Your task to perform on an android device: Open Amazon Image 0: 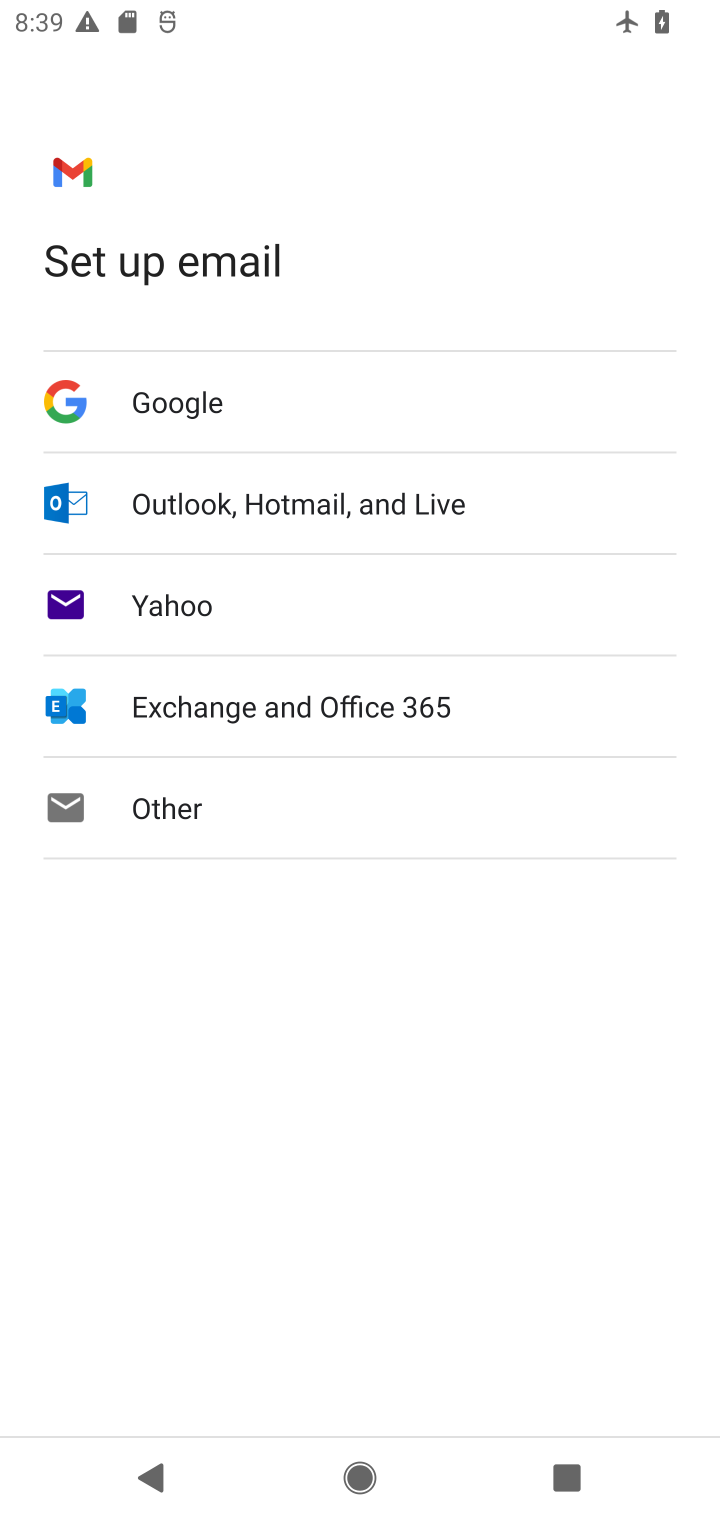
Step 0: press home button
Your task to perform on an android device: Open Amazon Image 1: 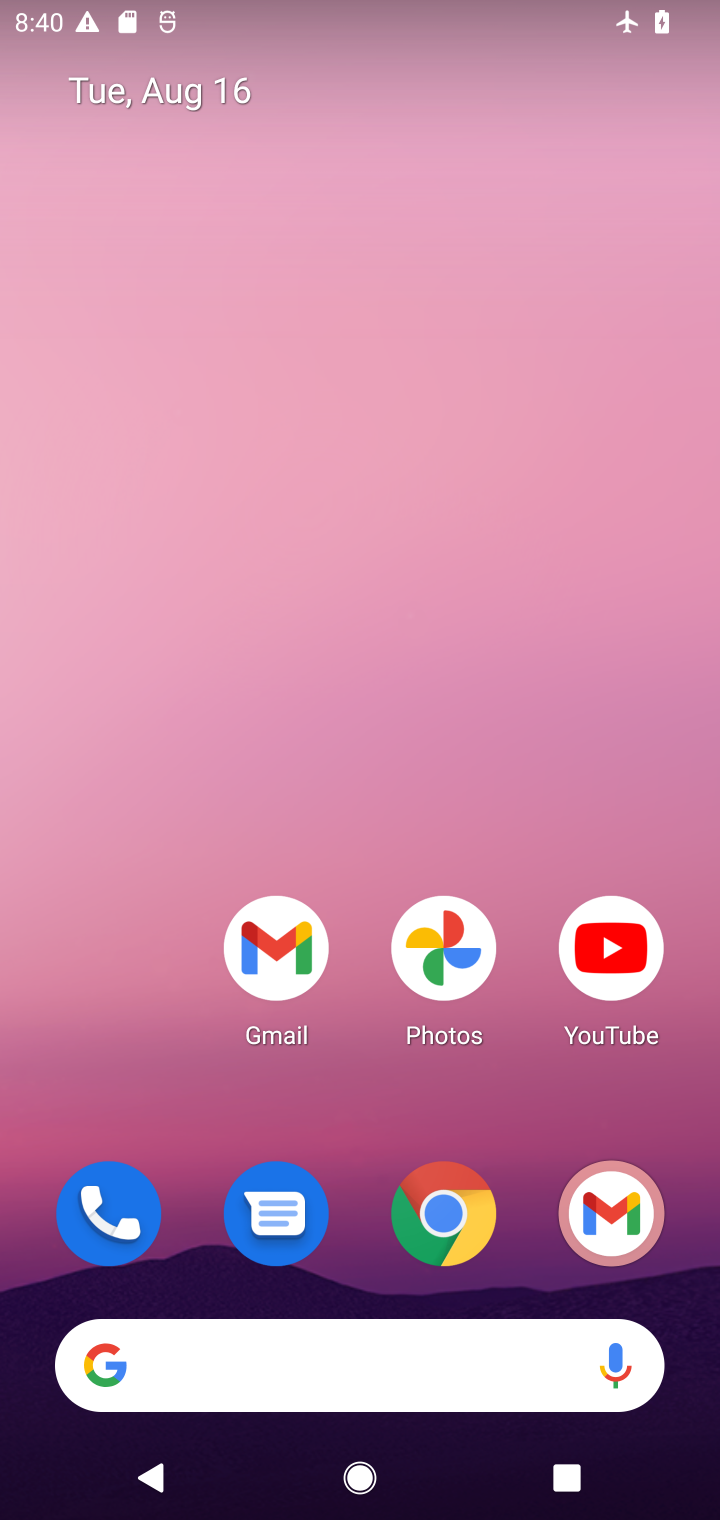
Step 1: click (456, 1188)
Your task to perform on an android device: Open Amazon Image 2: 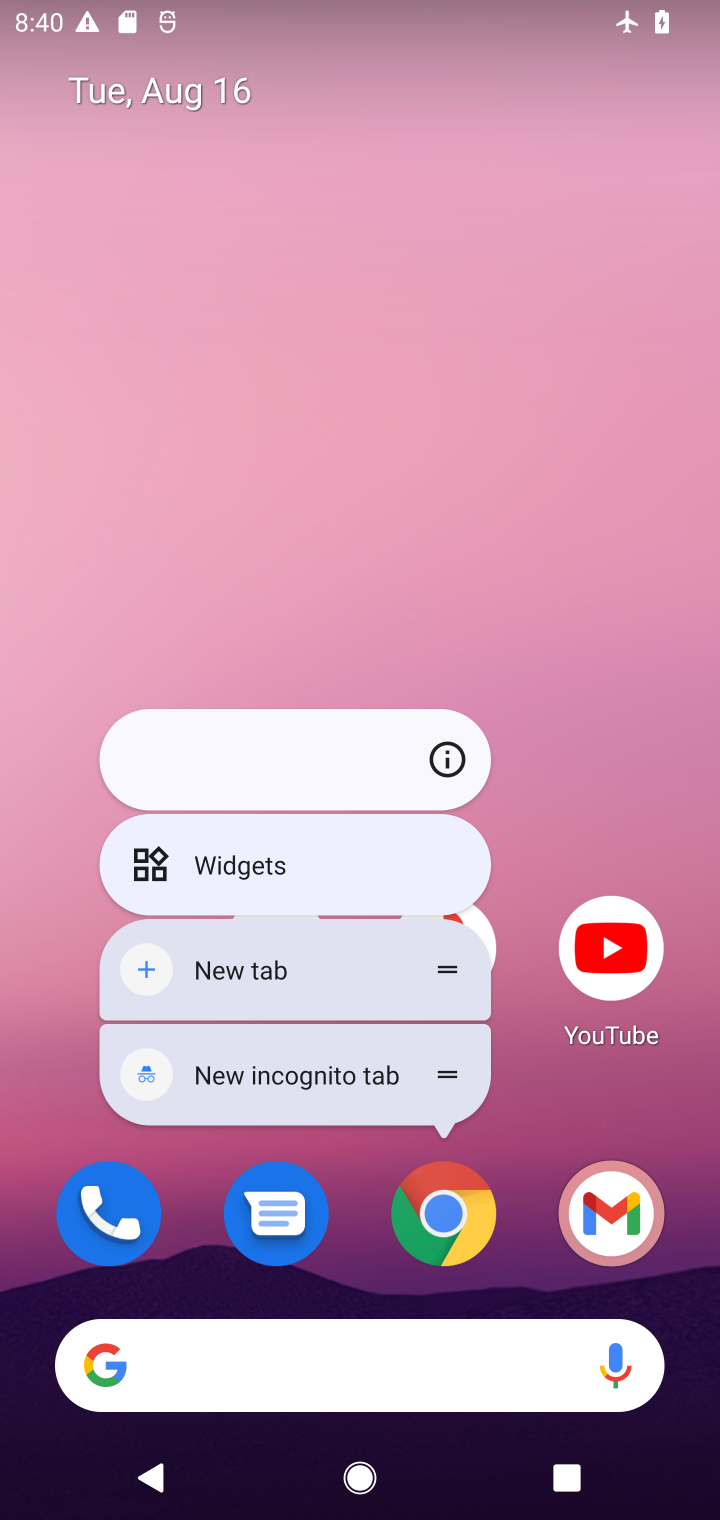
Step 2: click (434, 1242)
Your task to perform on an android device: Open Amazon Image 3: 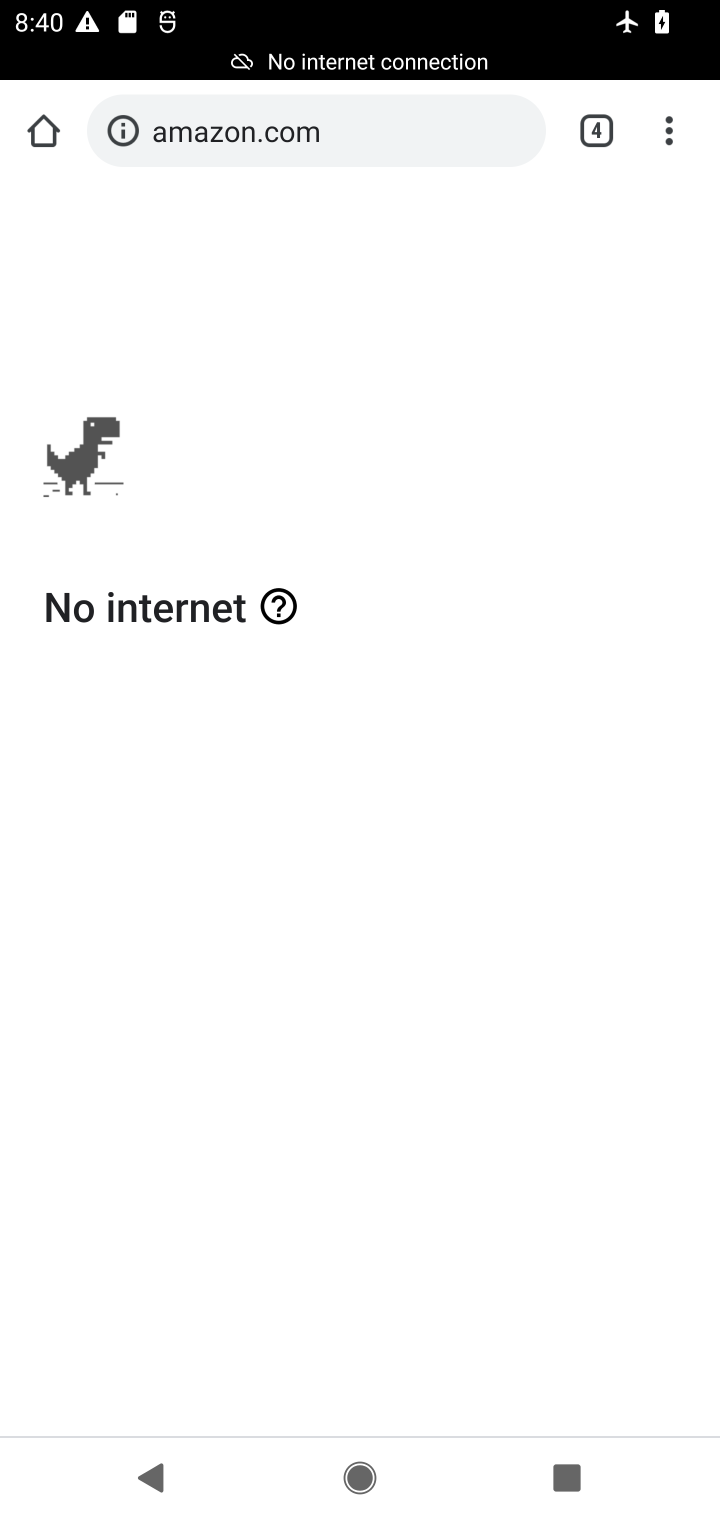
Step 3: click (659, 135)
Your task to perform on an android device: Open Amazon Image 4: 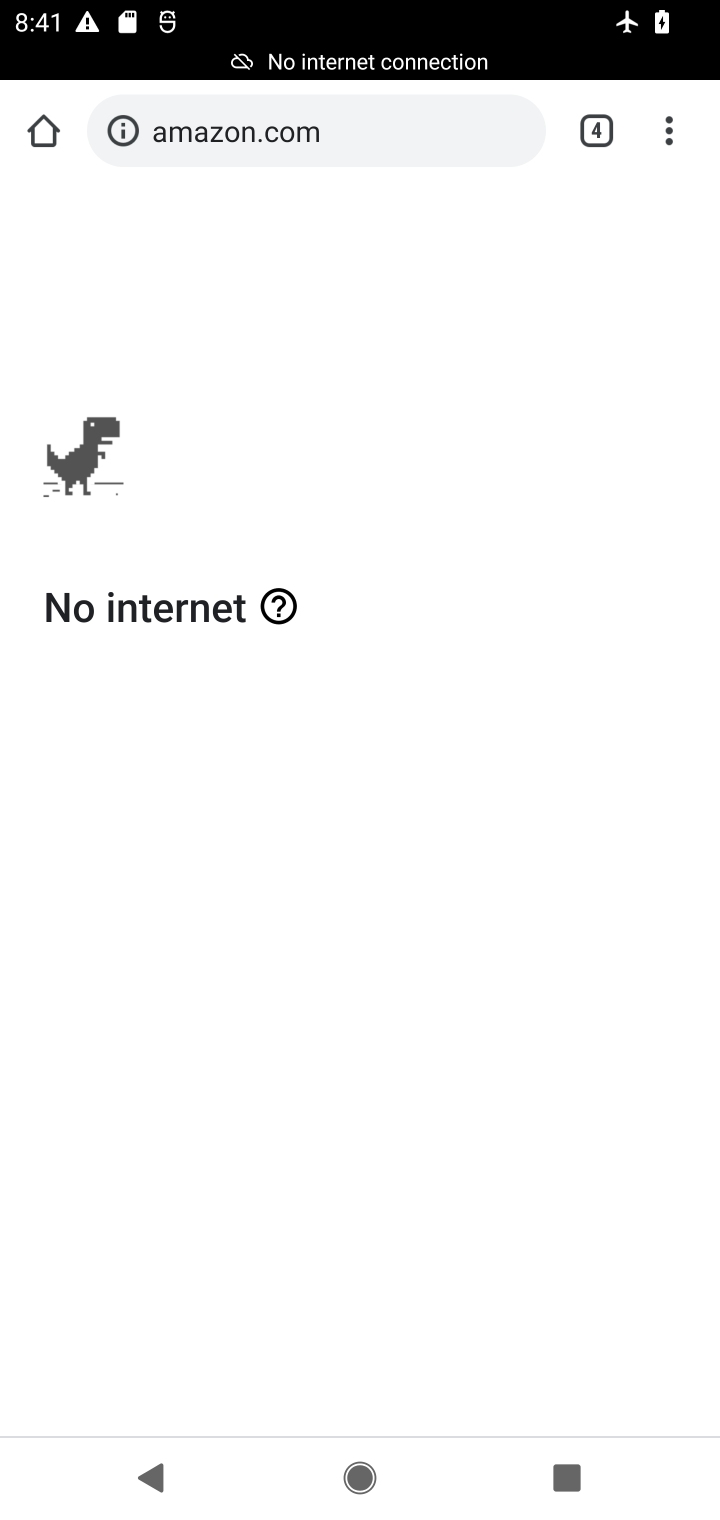
Step 4: click (593, 126)
Your task to perform on an android device: Open Amazon Image 5: 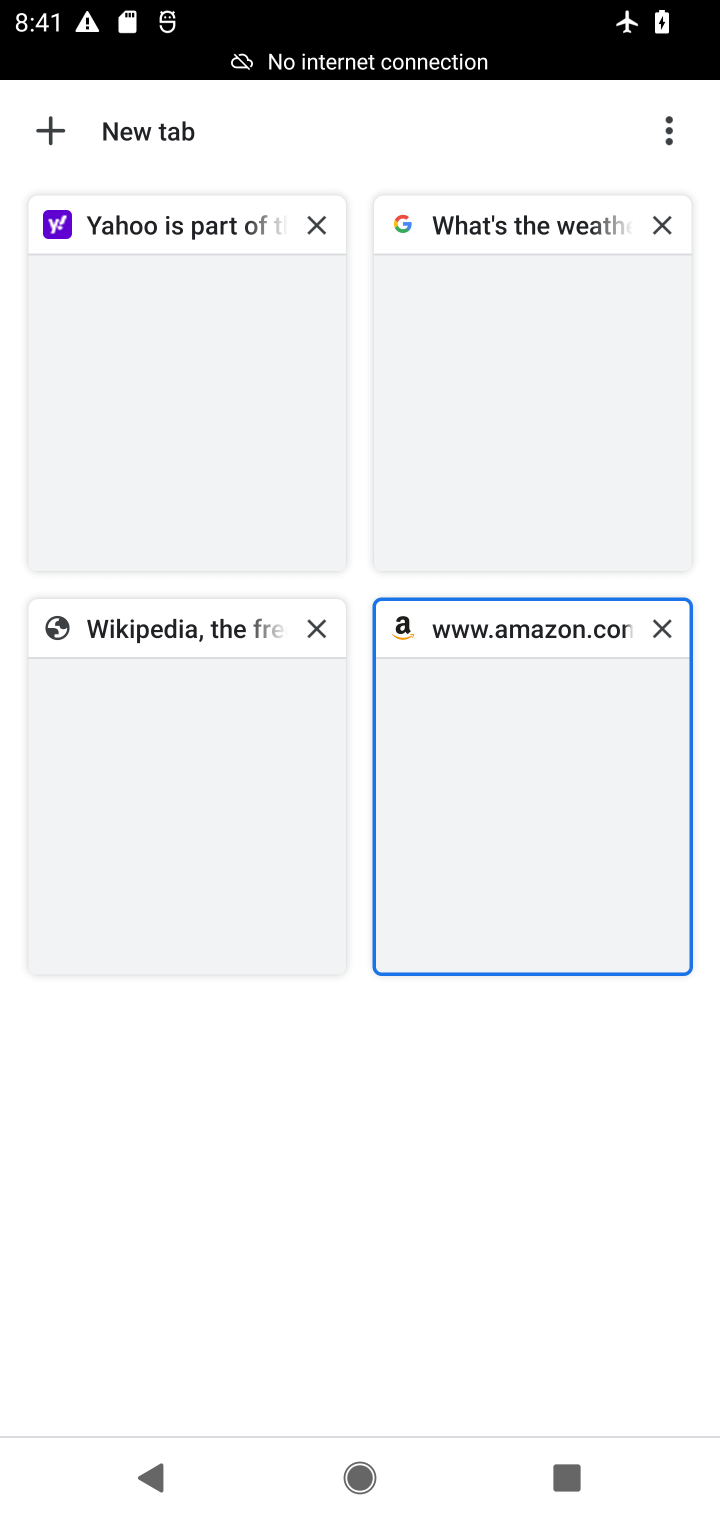
Step 5: click (44, 126)
Your task to perform on an android device: Open Amazon Image 6: 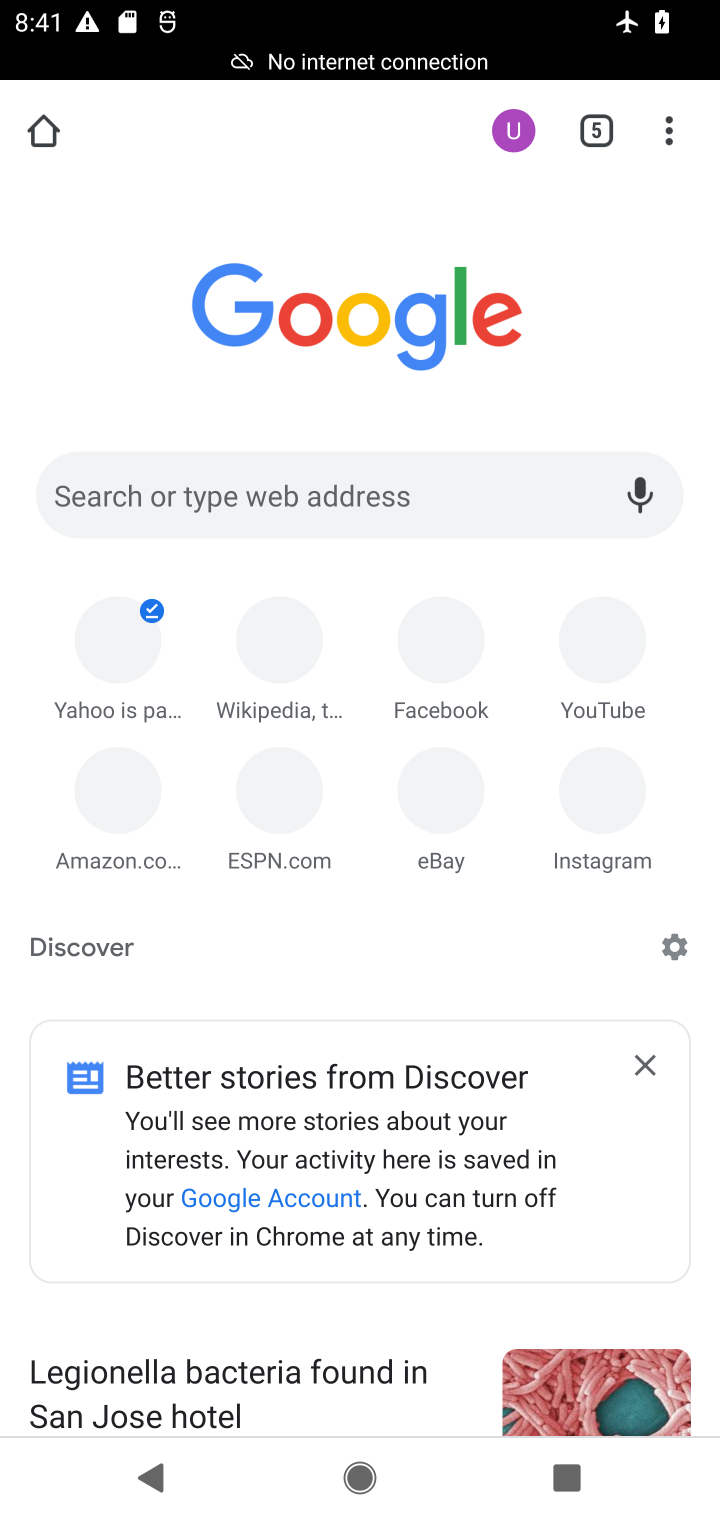
Step 6: click (114, 772)
Your task to perform on an android device: Open Amazon Image 7: 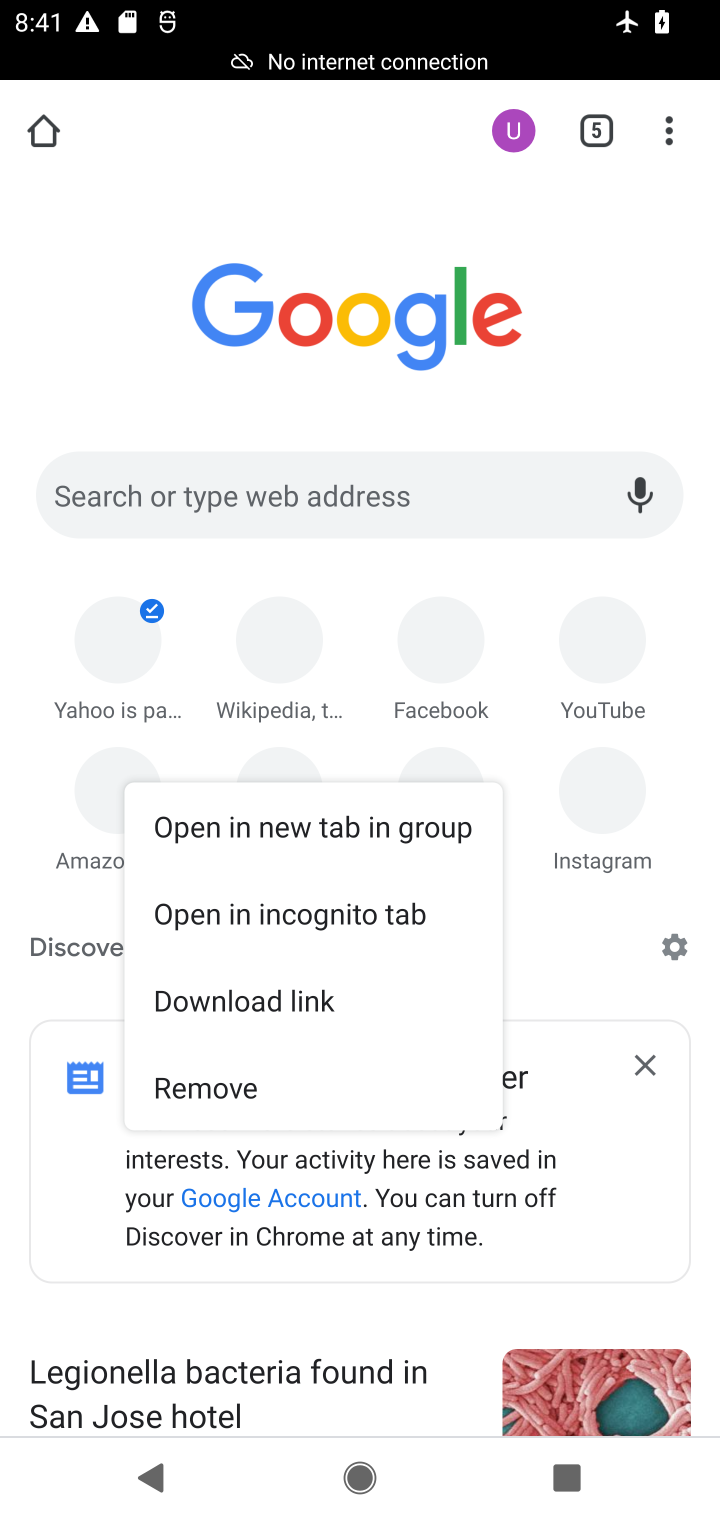
Step 7: click (124, 784)
Your task to perform on an android device: Open Amazon Image 8: 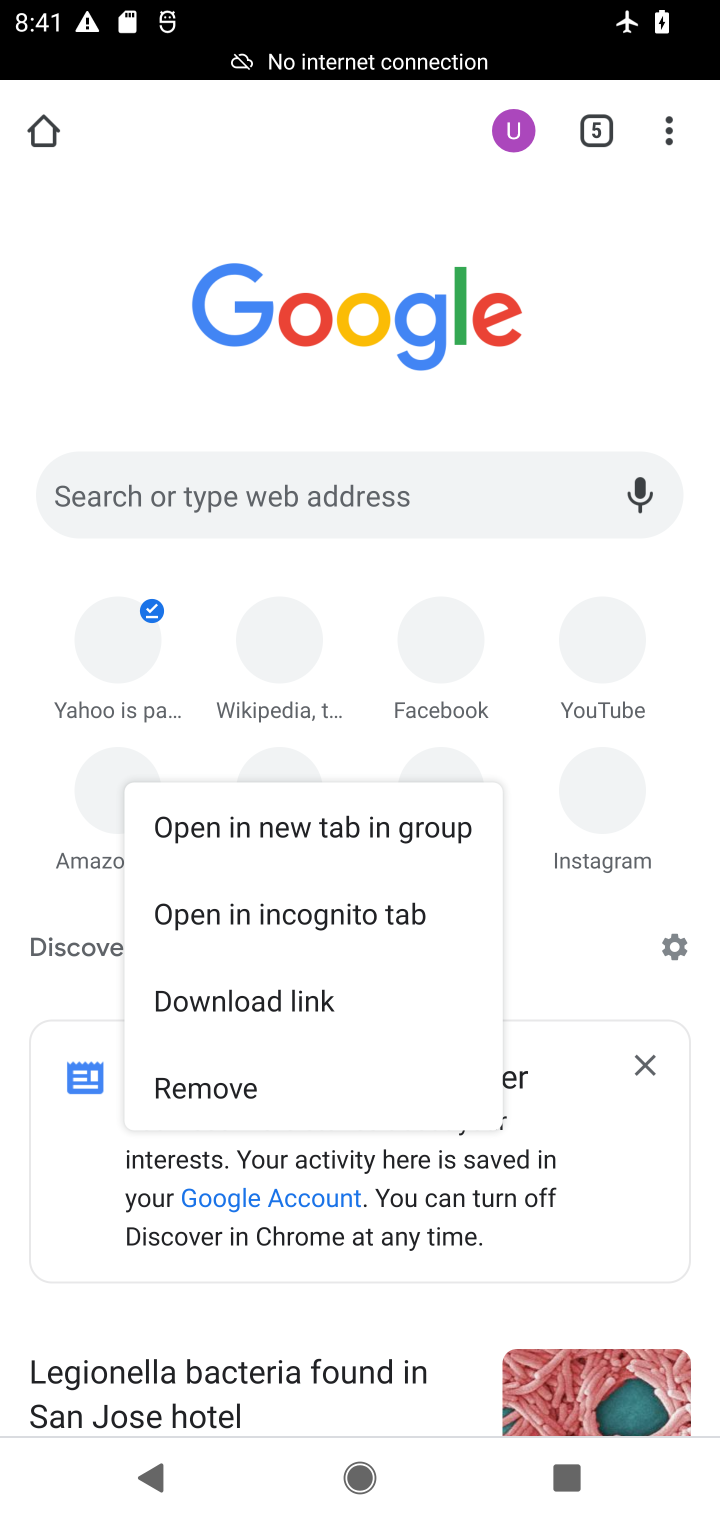
Step 8: click (105, 777)
Your task to perform on an android device: Open Amazon Image 9: 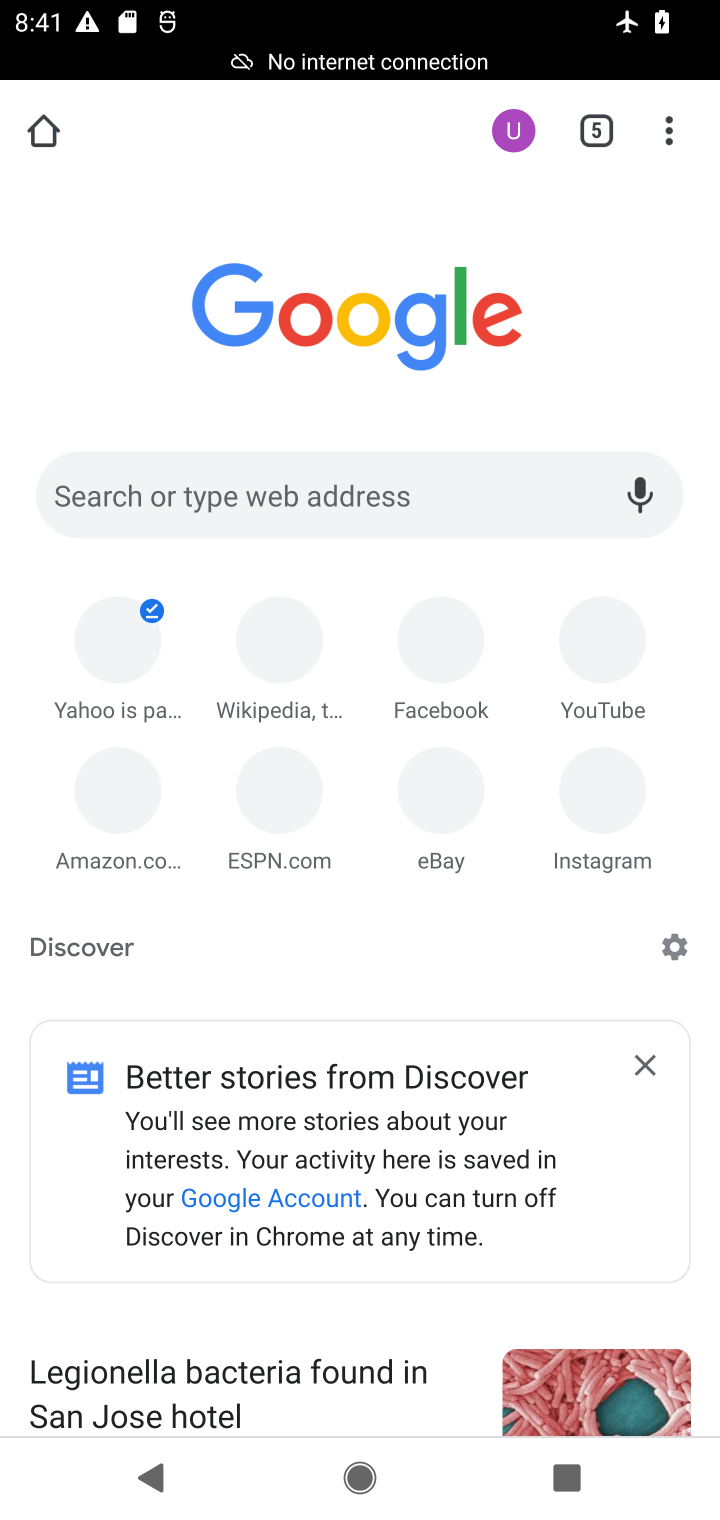
Step 9: click (133, 821)
Your task to perform on an android device: Open Amazon Image 10: 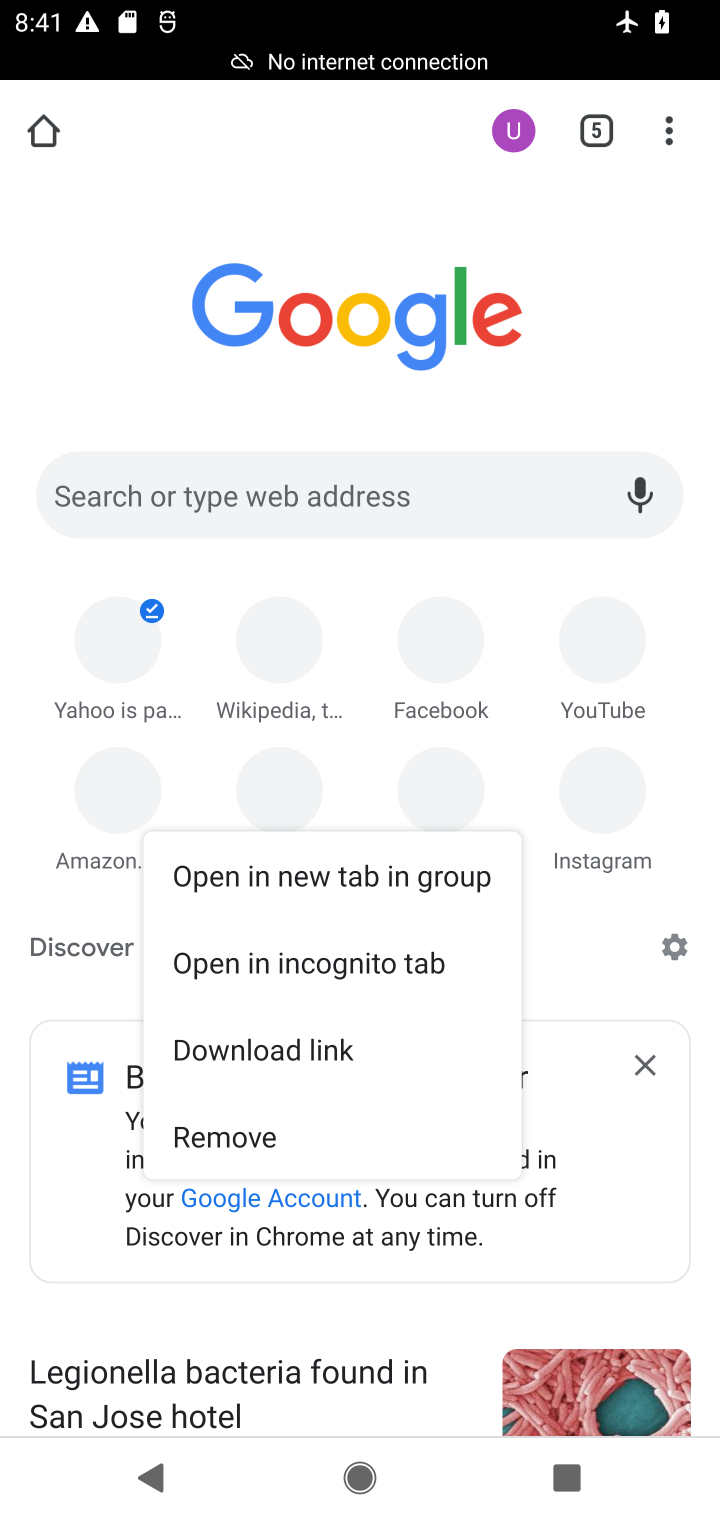
Step 10: click (126, 806)
Your task to perform on an android device: Open Amazon Image 11: 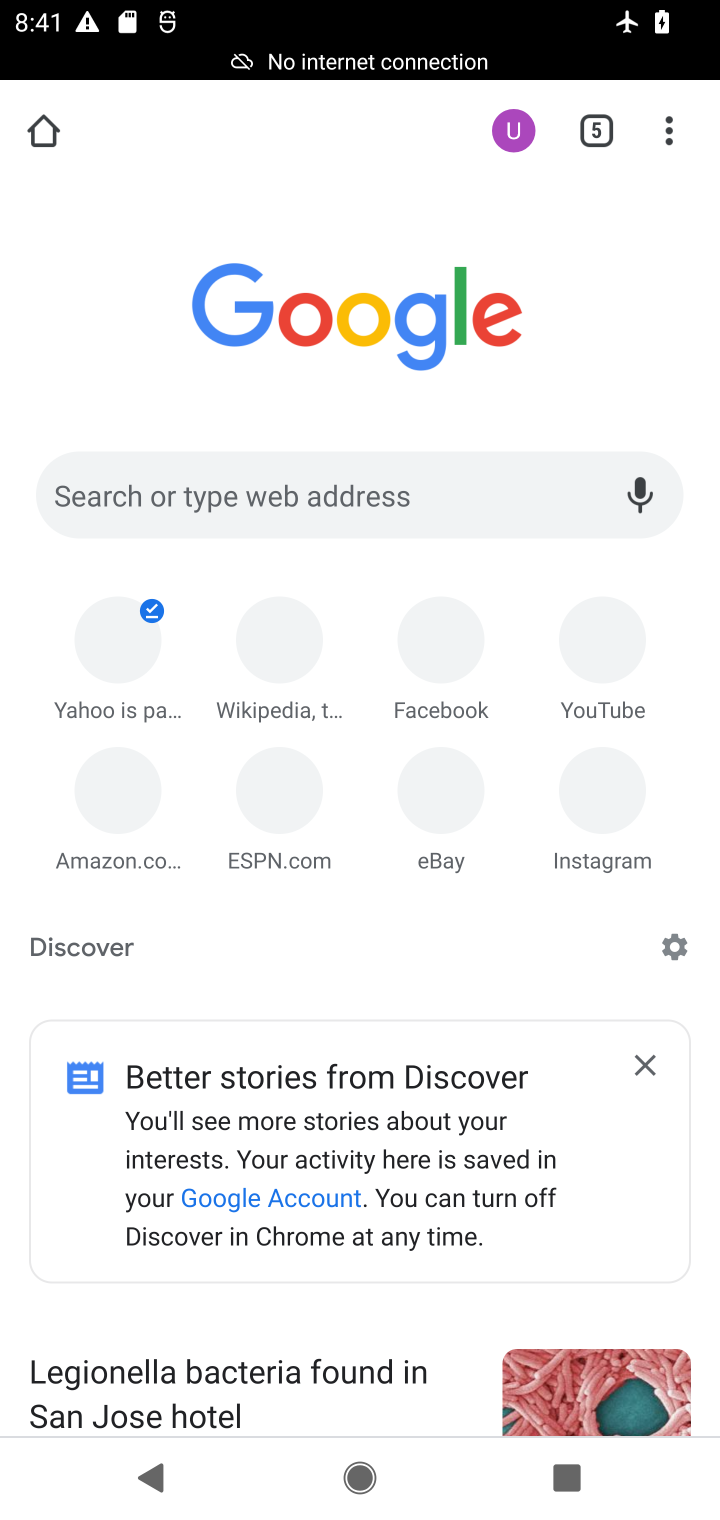
Step 11: click (93, 765)
Your task to perform on an android device: Open Amazon Image 12: 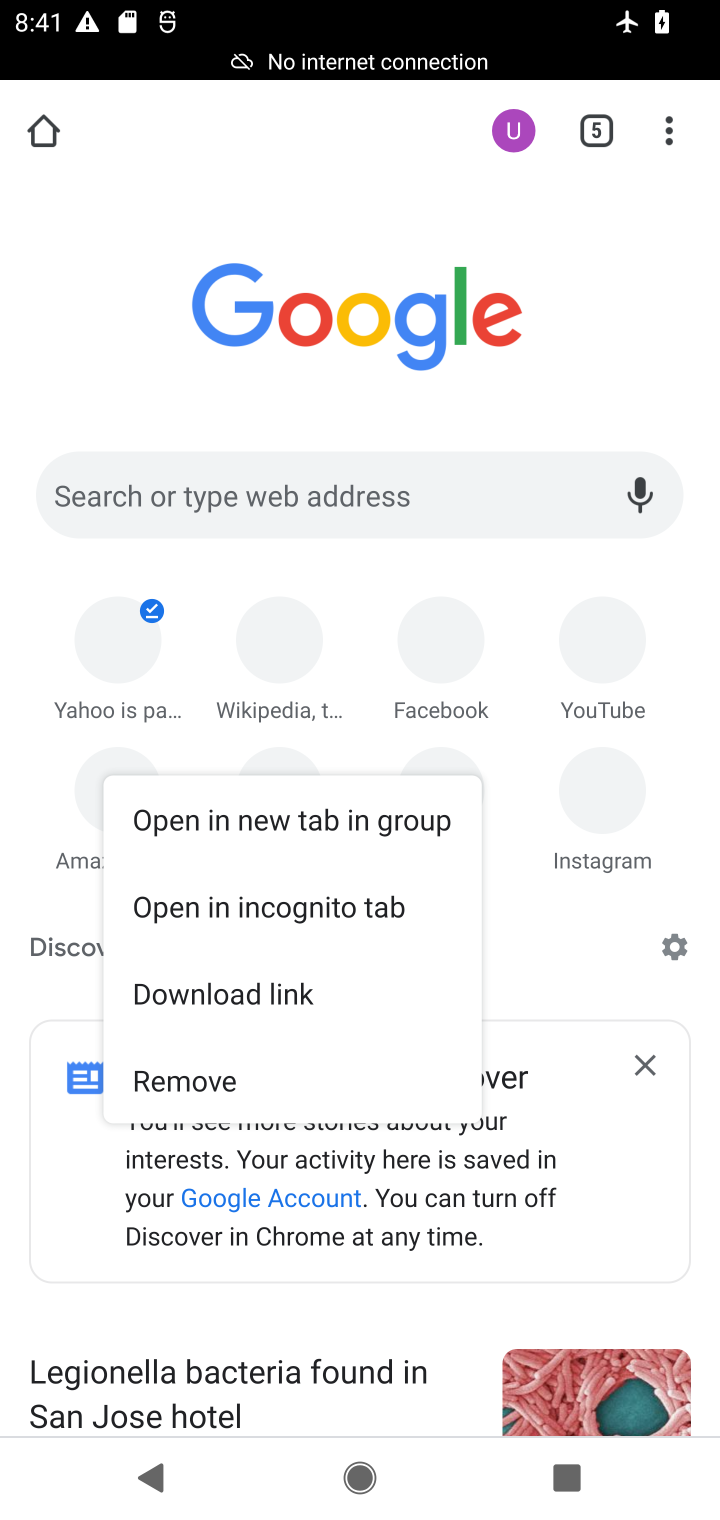
Step 12: task complete